Your task to perform on an android device: star an email in the gmail app Image 0: 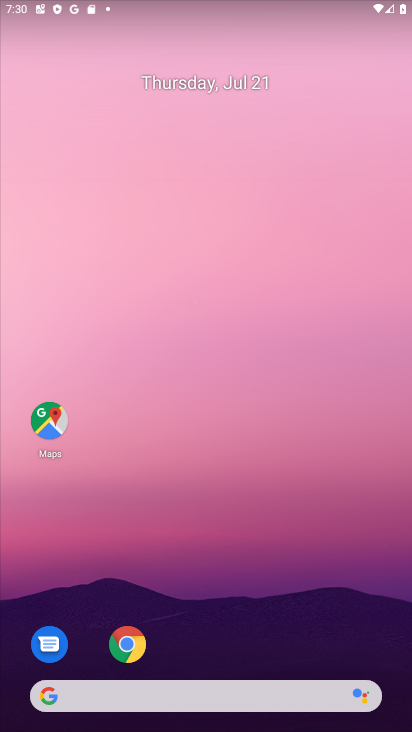
Step 0: drag from (230, 508) to (231, 244)
Your task to perform on an android device: star an email in the gmail app Image 1: 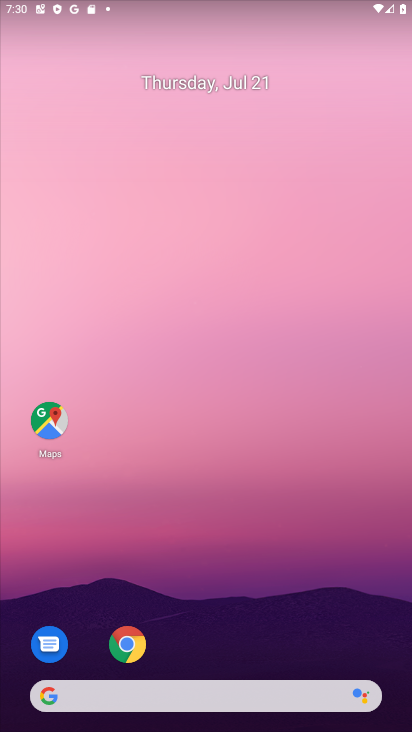
Step 1: drag from (266, 458) to (201, 156)
Your task to perform on an android device: star an email in the gmail app Image 2: 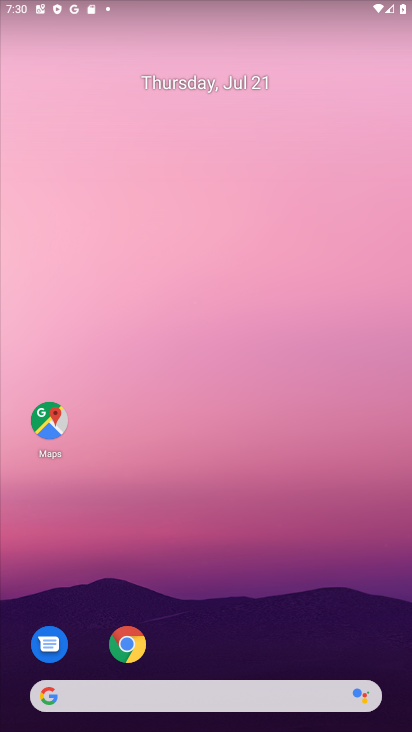
Step 2: drag from (244, 584) to (187, 206)
Your task to perform on an android device: star an email in the gmail app Image 3: 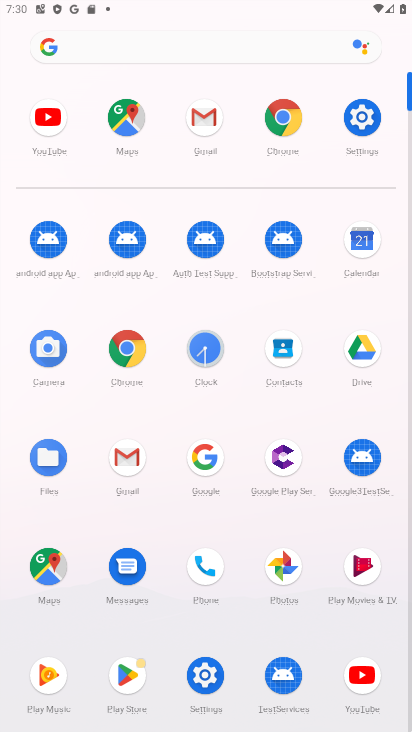
Step 3: click (120, 459)
Your task to perform on an android device: star an email in the gmail app Image 4: 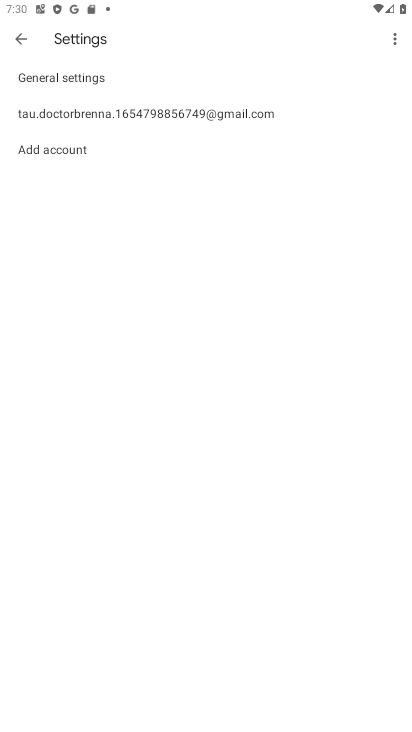
Step 4: click (24, 42)
Your task to perform on an android device: star an email in the gmail app Image 5: 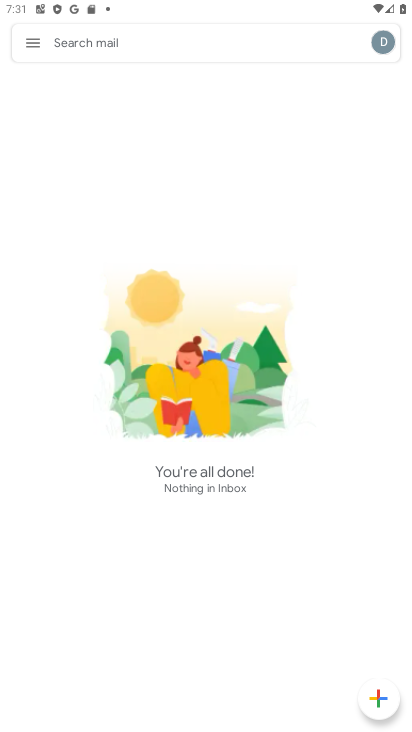
Step 5: click (32, 37)
Your task to perform on an android device: star an email in the gmail app Image 6: 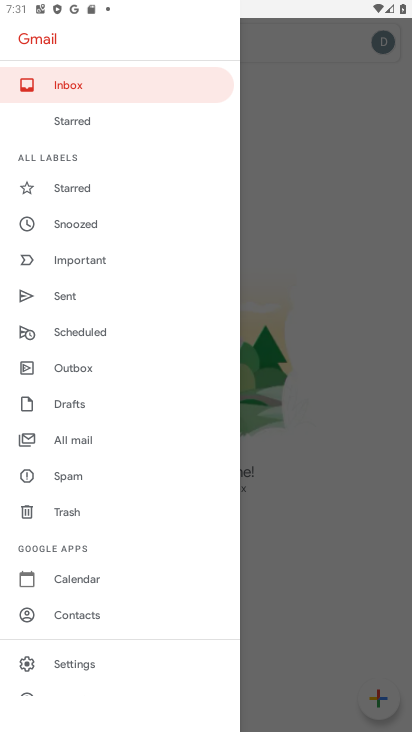
Step 6: click (79, 189)
Your task to perform on an android device: star an email in the gmail app Image 7: 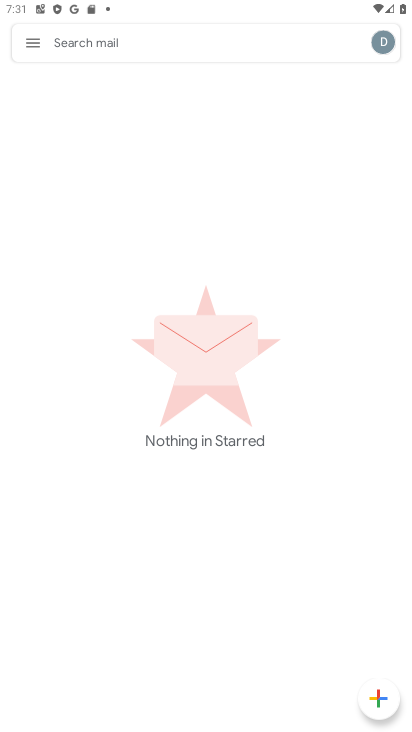
Step 7: task complete